Your task to perform on an android device: find photos in the google photos app Image 0: 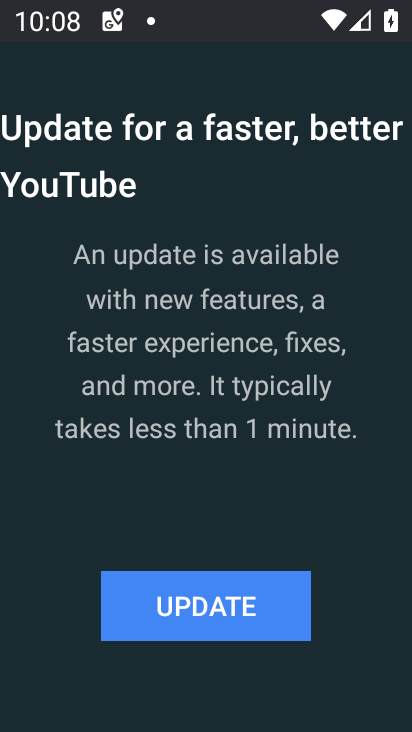
Step 0: press home button
Your task to perform on an android device: find photos in the google photos app Image 1: 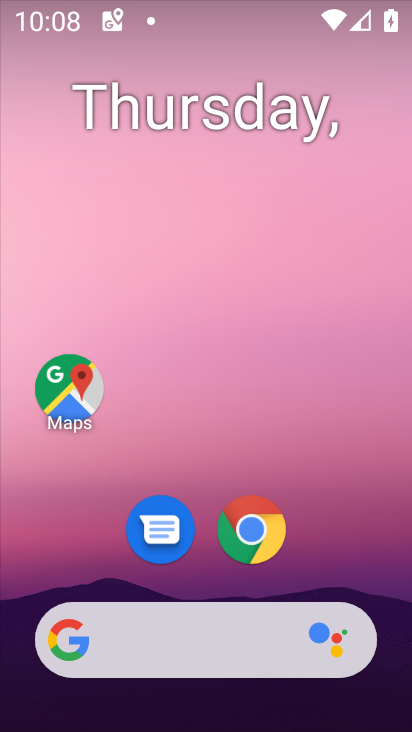
Step 1: drag from (237, 702) to (244, 200)
Your task to perform on an android device: find photos in the google photos app Image 2: 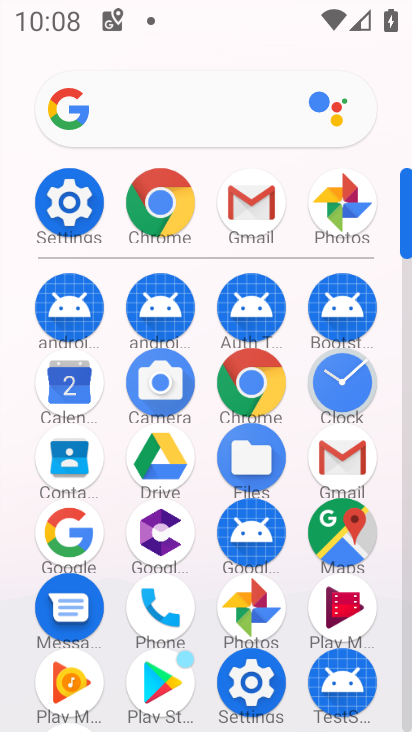
Step 2: click (336, 197)
Your task to perform on an android device: find photos in the google photos app Image 3: 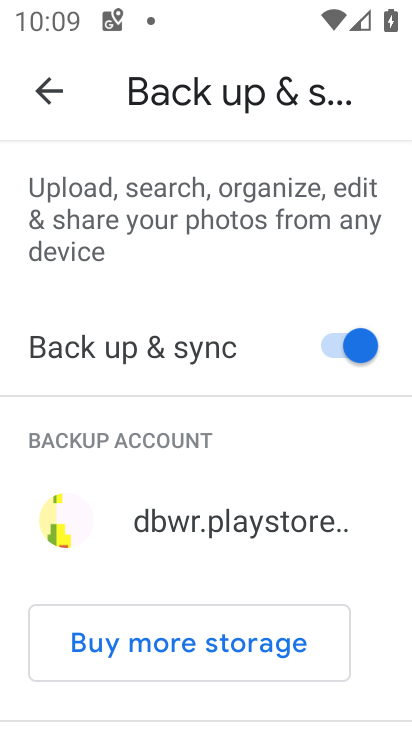
Step 3: press home button
Your task to perform on an android device: find photos in the google photos app Image 4: 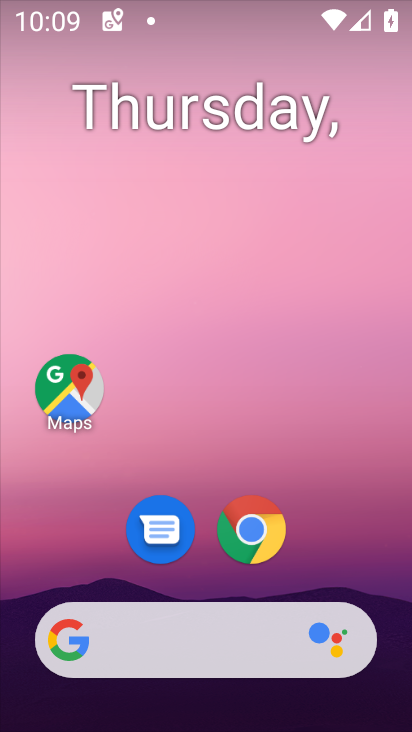
Step 4: drag from (220, 704) to (409, 38)
Your task to perform on an android device: find photos in the google photos app Image 5: 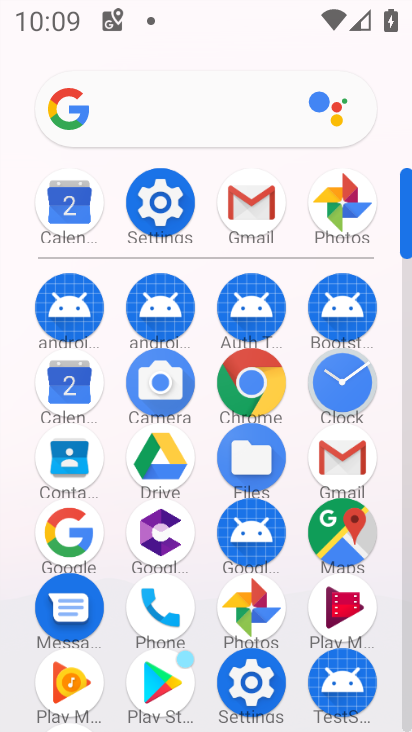
Step 5: click (358, 218)
Your task to perform on an android device: find photos in the google photos app Image 6: 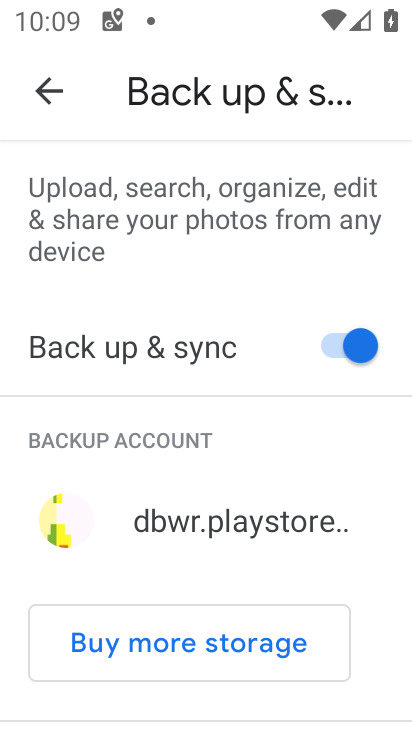
Step 6: click (50, 80)
Your task to perform on an android device: find photos in the google photos app Image 7: 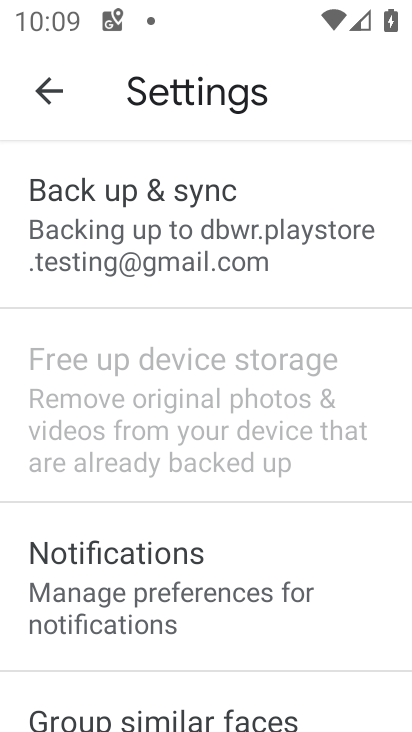
Step 7: click (42, 103)
Your task to perform on an android device: find photos in the google photos app Image 8: 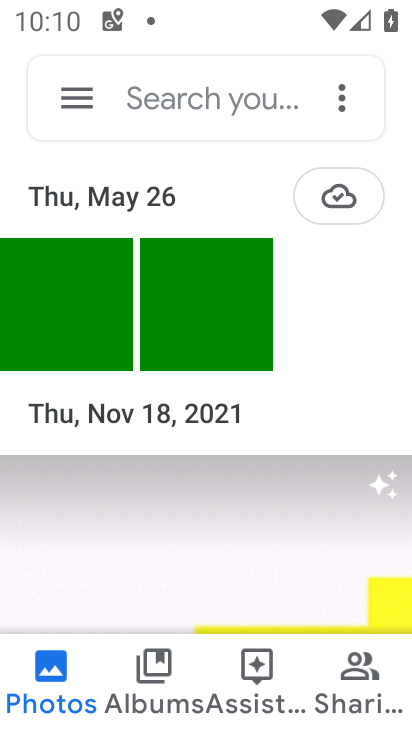
Step 8: task complete